Your task to perform on an android device: toggle airplane mode Image 0: 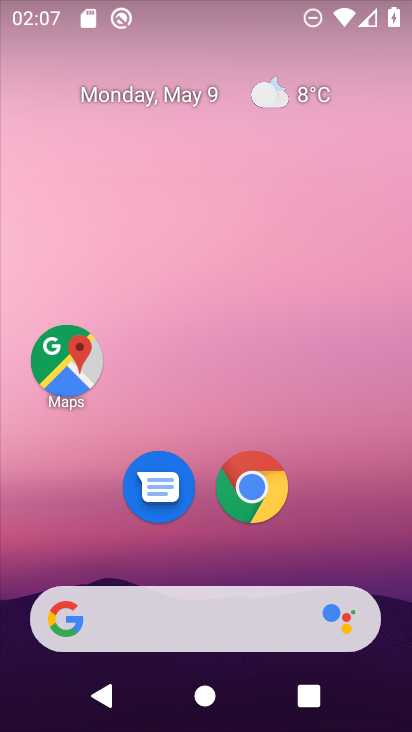
Step 0: drag from (334, 104) to (350, 674)
Your task to perform on an android device: toggle airplane mode Image 1: 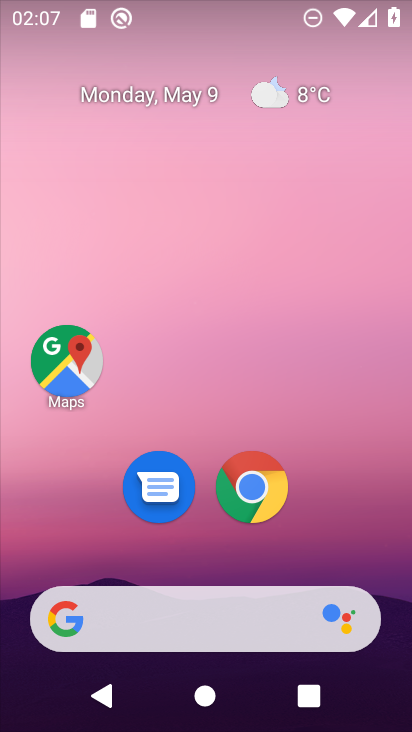
Step 1: drag from (327, 3) to (312, 560)
Your task to perform on an android device: toggle airplane mode Image 2: 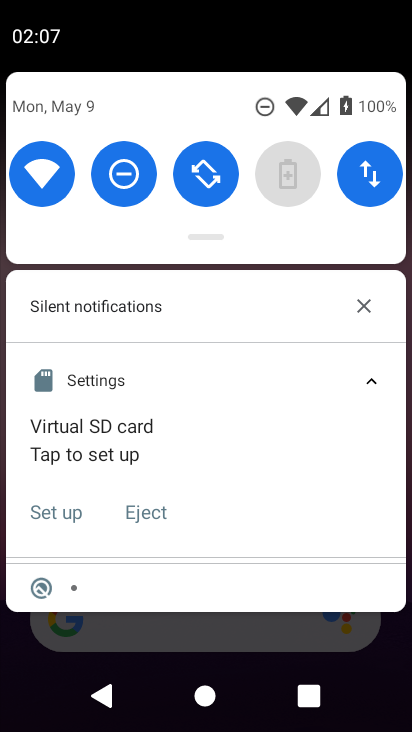
Step 2: drag from (223, 221) to (250, 629)
Your task to perform on an android device: toggle airplane mode Image 3: 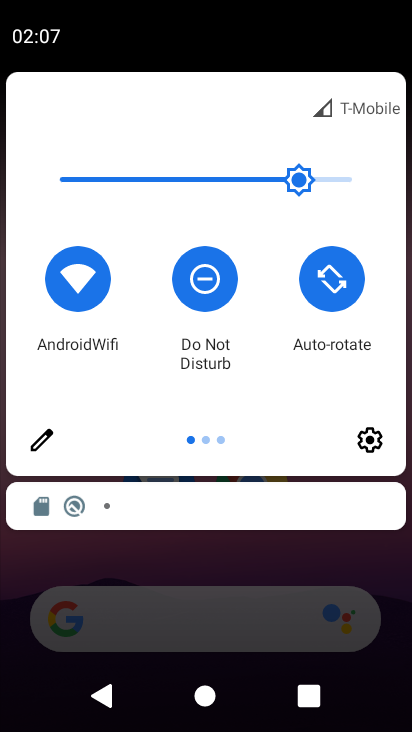
Step 3: drag from (275, 314) to (1, 337)
Your task to perform on an android device: toggle airplane mode Image 4: 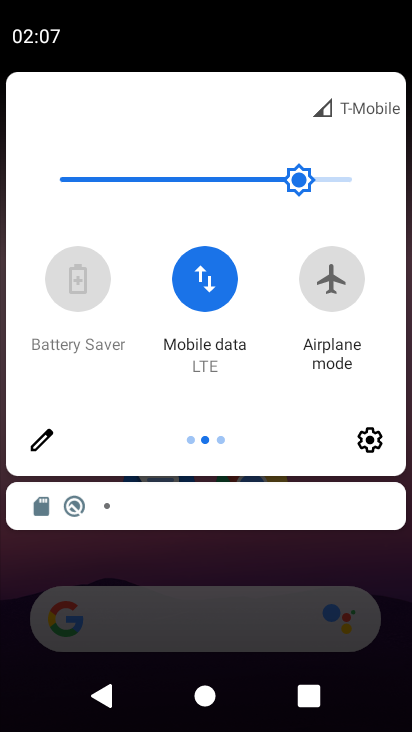
Step 4: click (331, 282)
Your task to perform on an android device: toggle airplane mode Image 5: 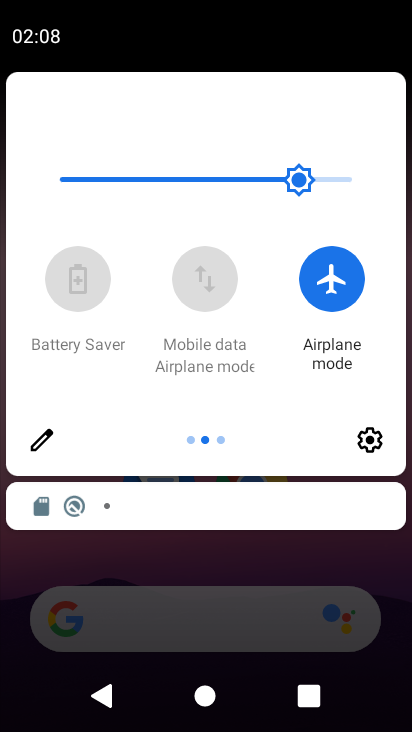
Step 5: task complete